Your task to perform on an android device: Is it going to rain tomorrow? Image 0: 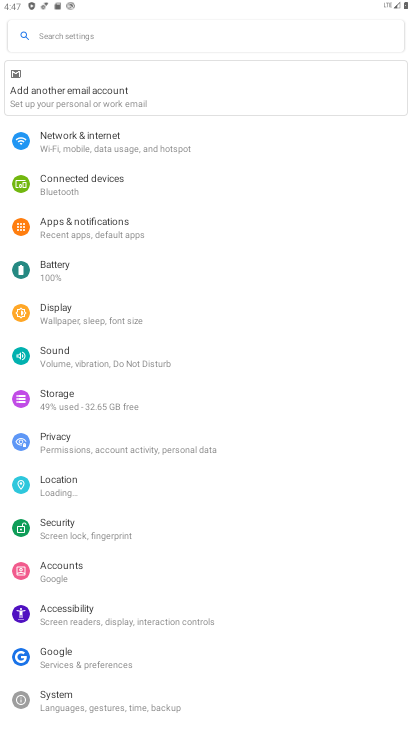
Step 0: press home button
Your task to perform on an android device: Is it going to rain tomorrow? Image 1: 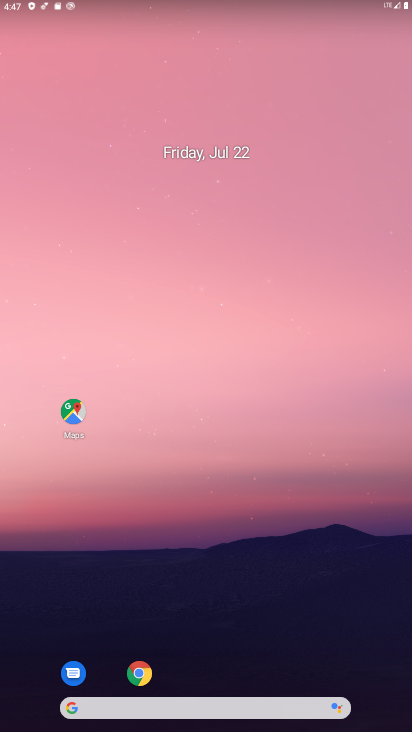
Step 1: click (72, 711)
Your task to perform on an android device: Is it going to rain tomorrow? Image 2: 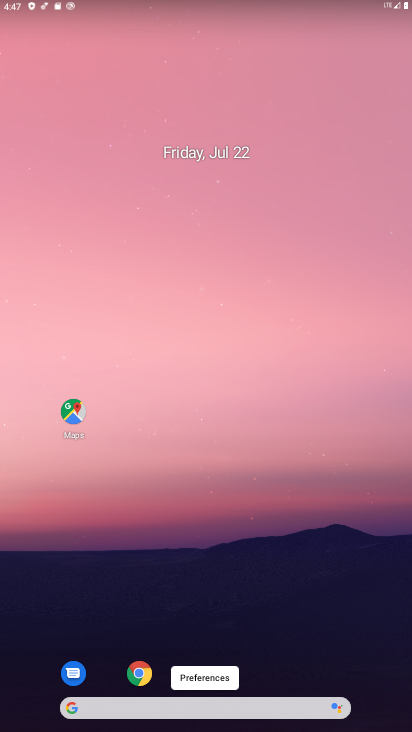
Step 2: click (67, 707)
Your task to perform on an android device: Is it going to rain tomorrow? Image 3: 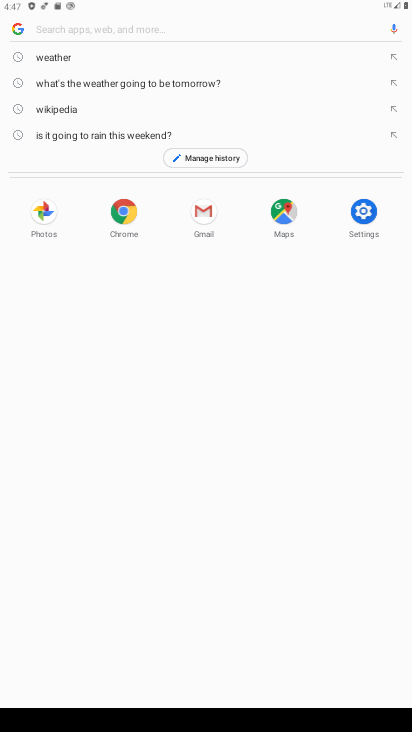
Step 3: type "Is it going to rain tomorrow?"
Your task to perform on an android device: Is it going to rain tomorrow? Image 4: 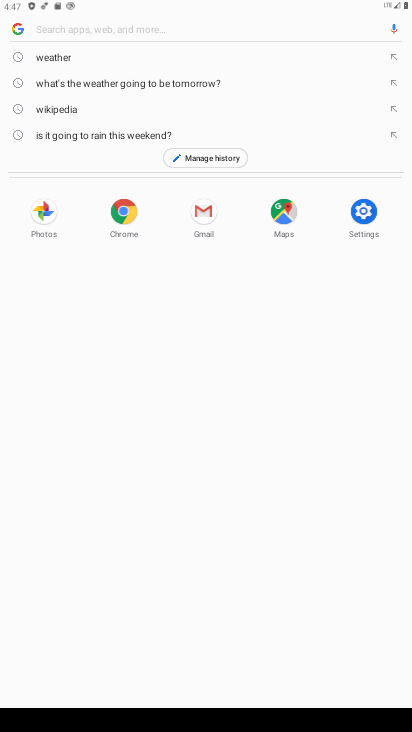
Step 4: click (90, 30)
Your task to perform on an android device: Is it going to rain tomorrow? Image 5: 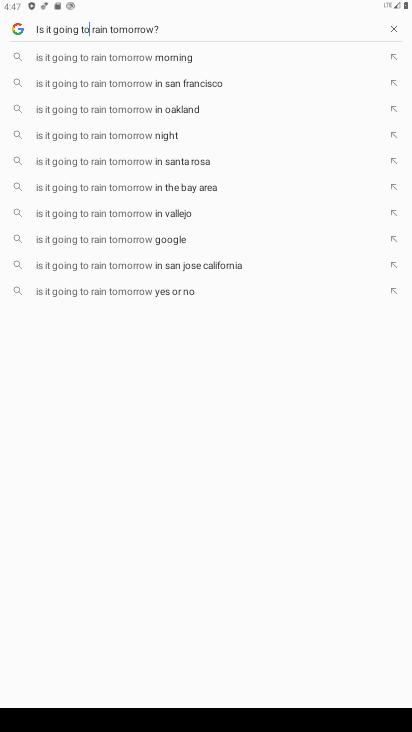
Step 5: click (108, 27)
Your task to perform on an android device: Is it going to rain tomorrow? Image 6: 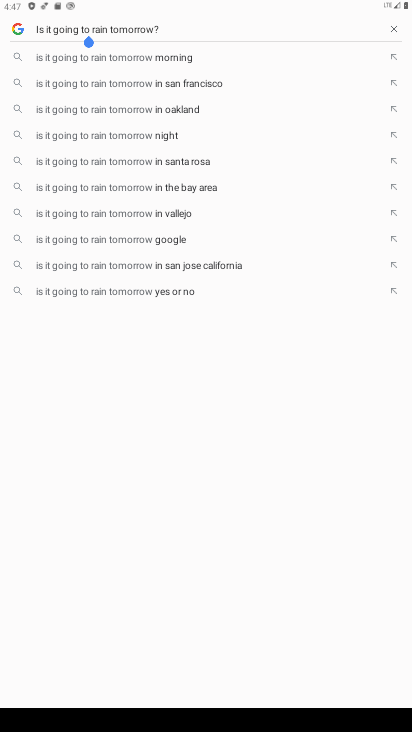
Step 6: click (108, 27)
Your task to perform on an android device: Is it going to rain tomorrow? Image 7: 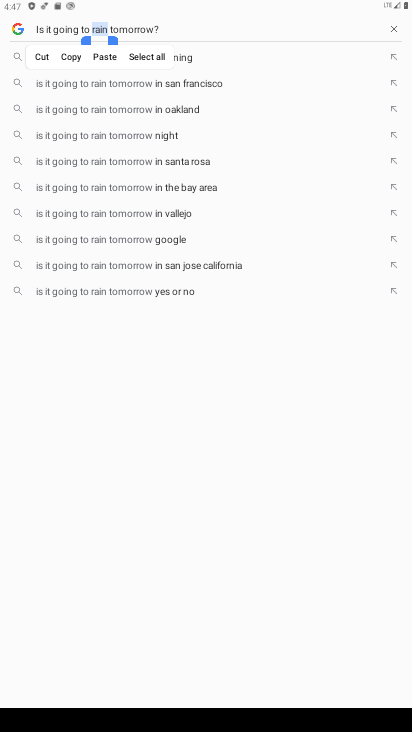
Step 7: press enter
Your task to perform on an android device: Is it going to rain tomorrow? Image 8: 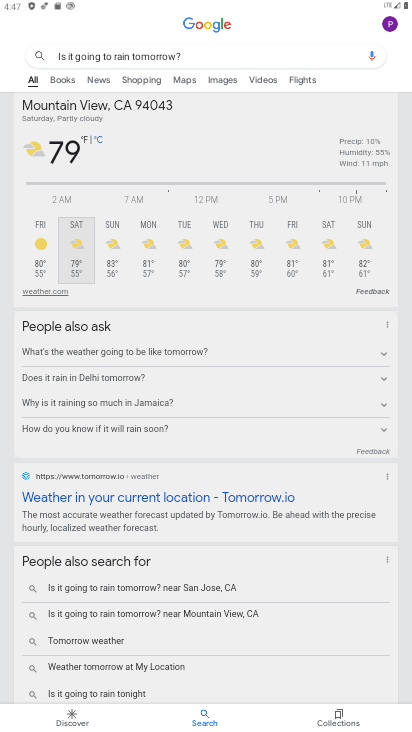
Step 8: task complete